Your task to perform on an android device: set an alarm Image 0: 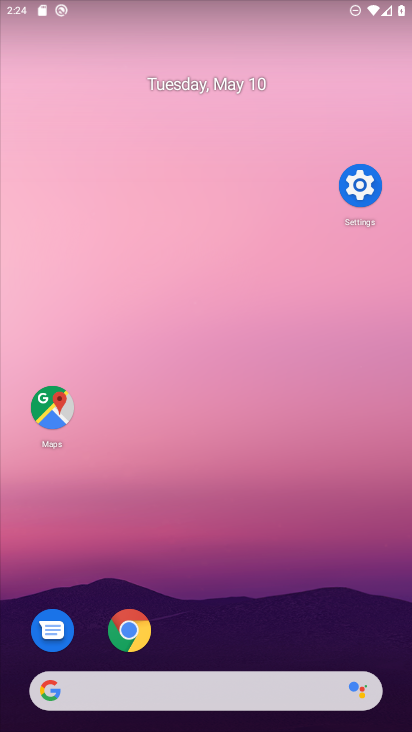
Step 0: drag from (267, 414) to (218, 9)
Your task to perform on an android device: set an alarm Image 1: 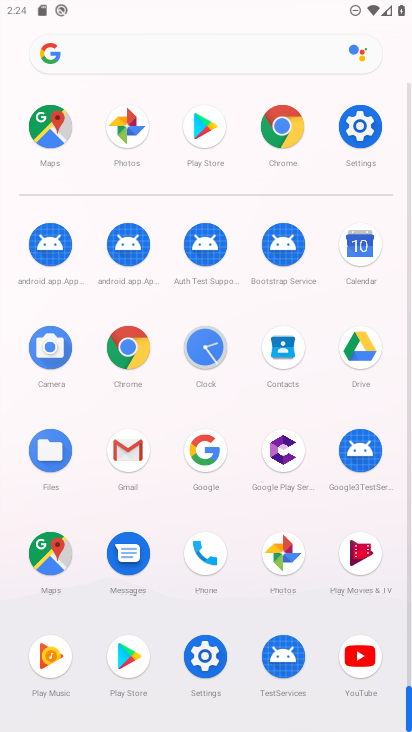
Step 1: click (207, 345)
Your task to perform on an android device: set an alarm Image 2: 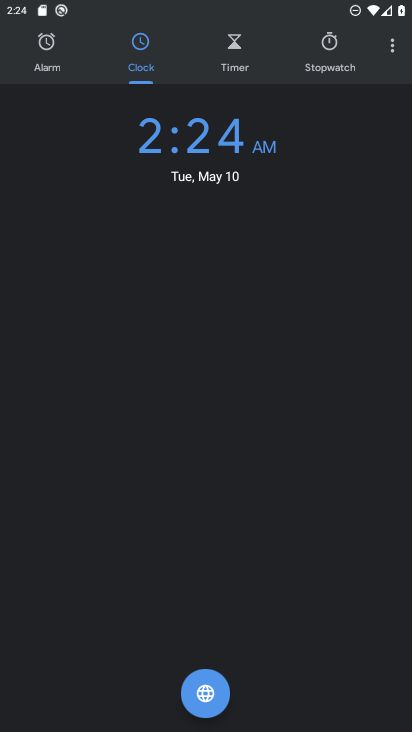
Step 2: click (50, 49)
Your task to perform on an android device: set an alarm Image 3: 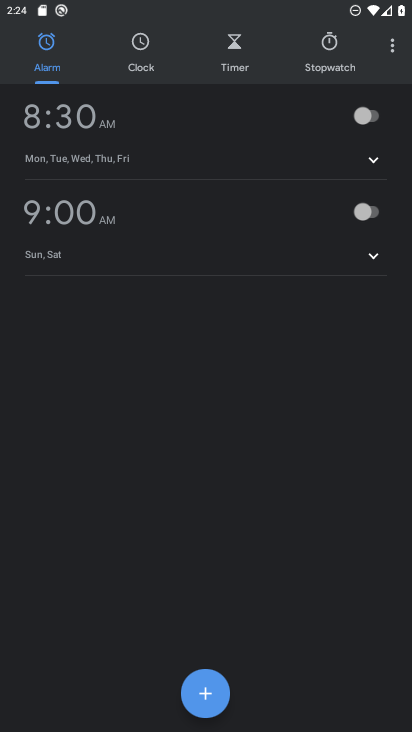
Step 3: click (369, 207)
Your task to perform on an android device: set an alarm Image 4: 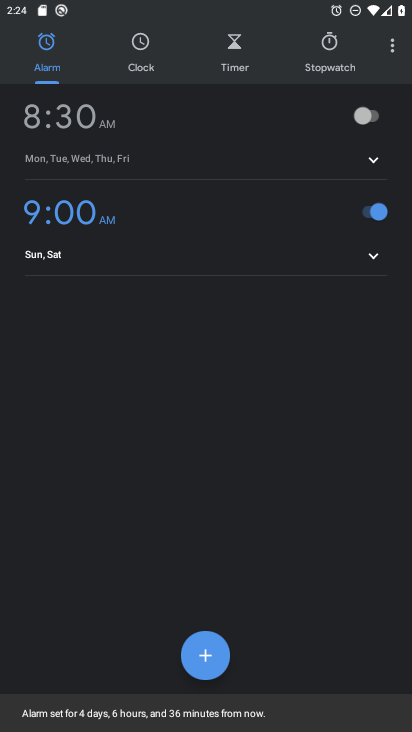
Step 4: task complete